Your task to perform on an android device: Open the calendar and show me this week's events? Image 0: 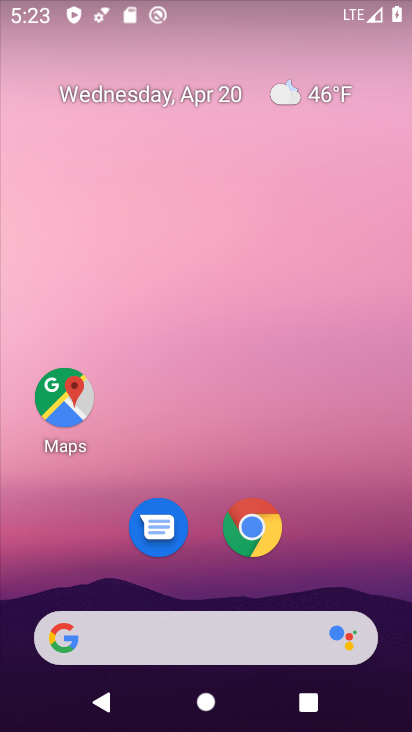
Step 0: drag from (295, 420) to (223, 63)
Your task to perform on an android device: Open the calendar and show me this week's events? Image 1: 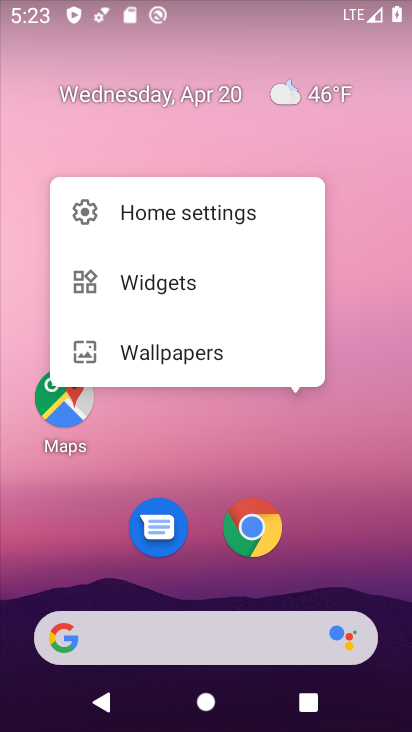
Step 1: drag from (326, 551) to (256, 52)
Your task to perform on an android device: Open the calendar and show me this week's events? Image 2: 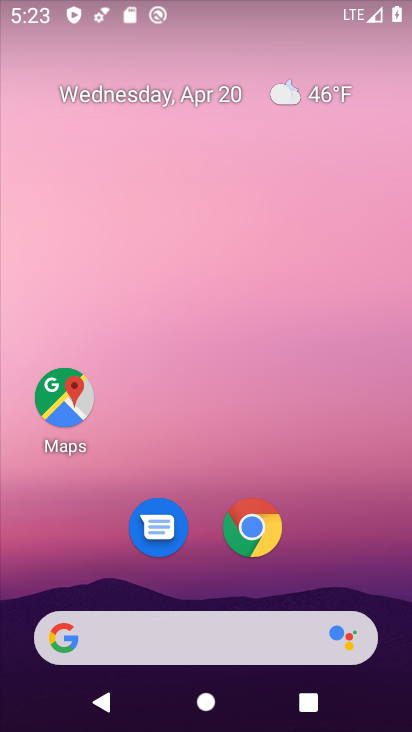
Step 2: drag from (337, 553) to (250, 12)
Your task to perform on an android device: Open the calendar and show me this week's events? Image 3: 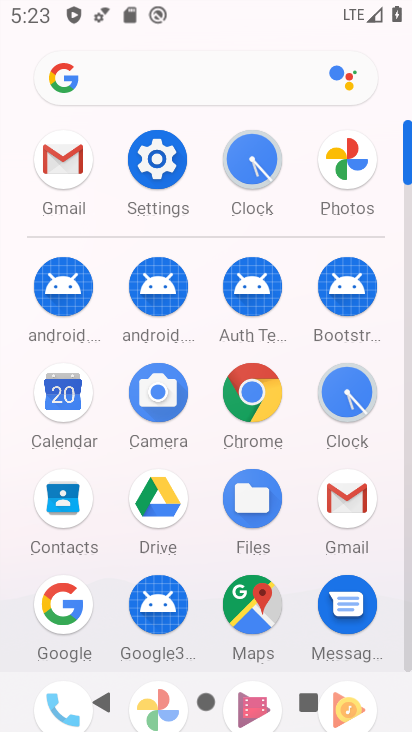
Step 3: click (60, 397)
Your task to perform on an android device: Open the calendar and show me this week's events? Image 4: 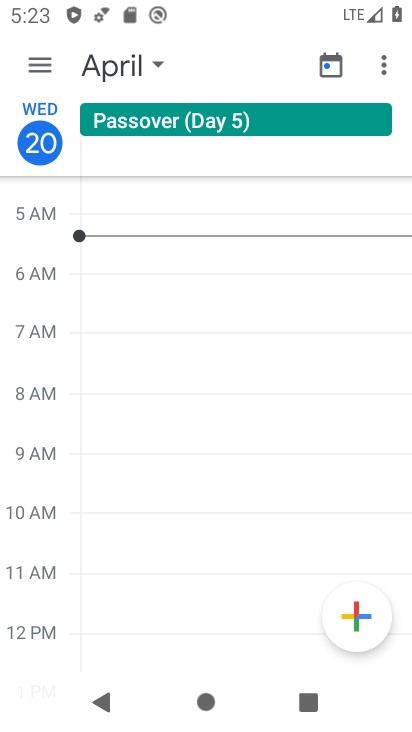
Step 4: click (39, 60)
Your task to perform on an android device: Open the calendar and show me this week's events? Image 5: 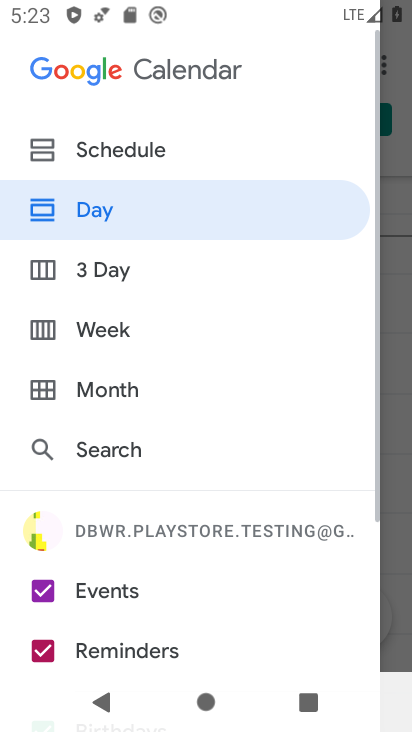
Step 5: click (99, 326)
Your task to perform on an android device: Open the calendar and show me this week's events? Image 6: 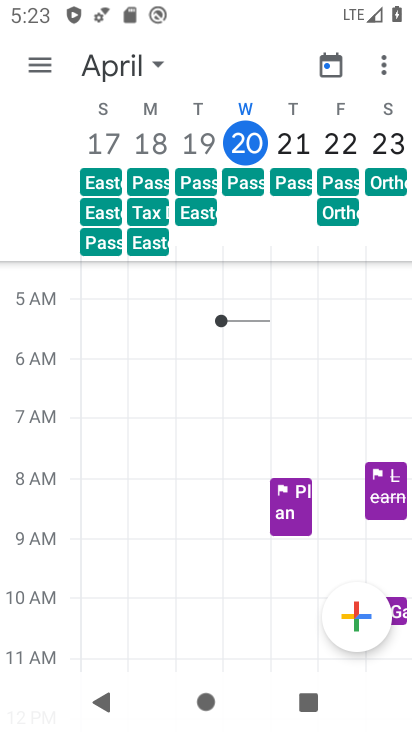
Step 6: click (154, 64)
Your task to perform on an android device: Open the calendar and show me this week's events? Image 7: 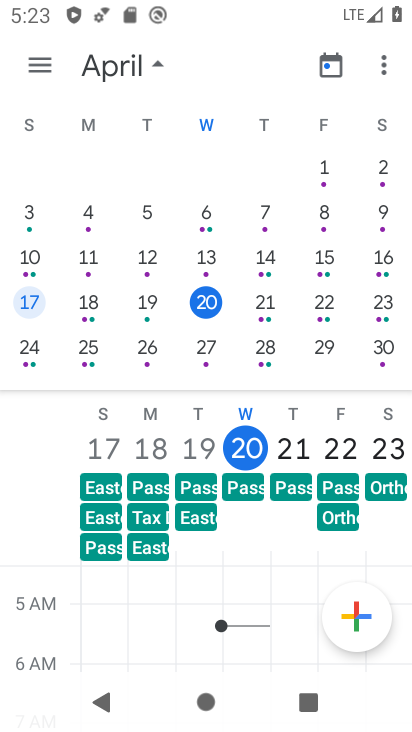
Step 7: task complete